Your task to perform on an android device: Open Chrome and go to the settings page Image 0: 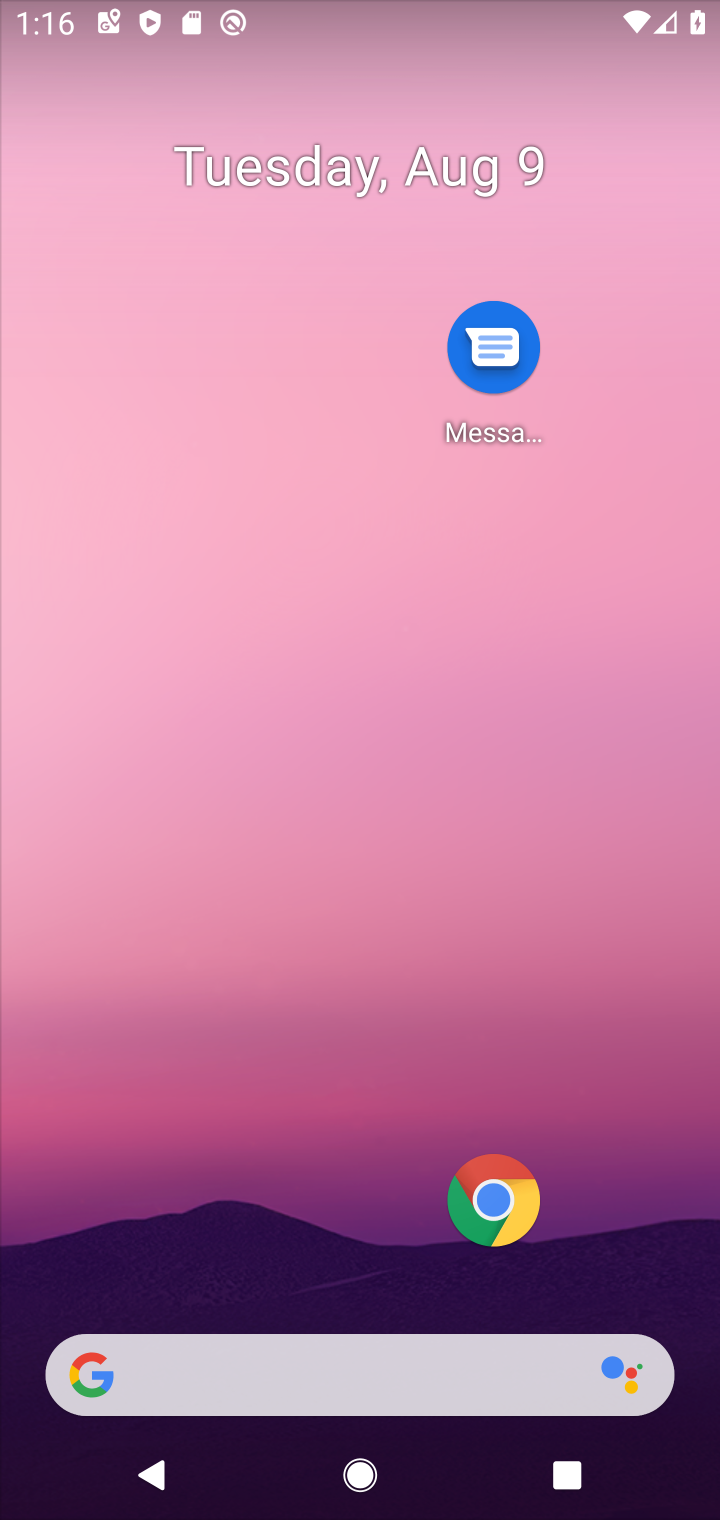
Step 0: click (485, 1207)
Your task to perform on an android device: Open Chrome and go to the settings page Image 1: 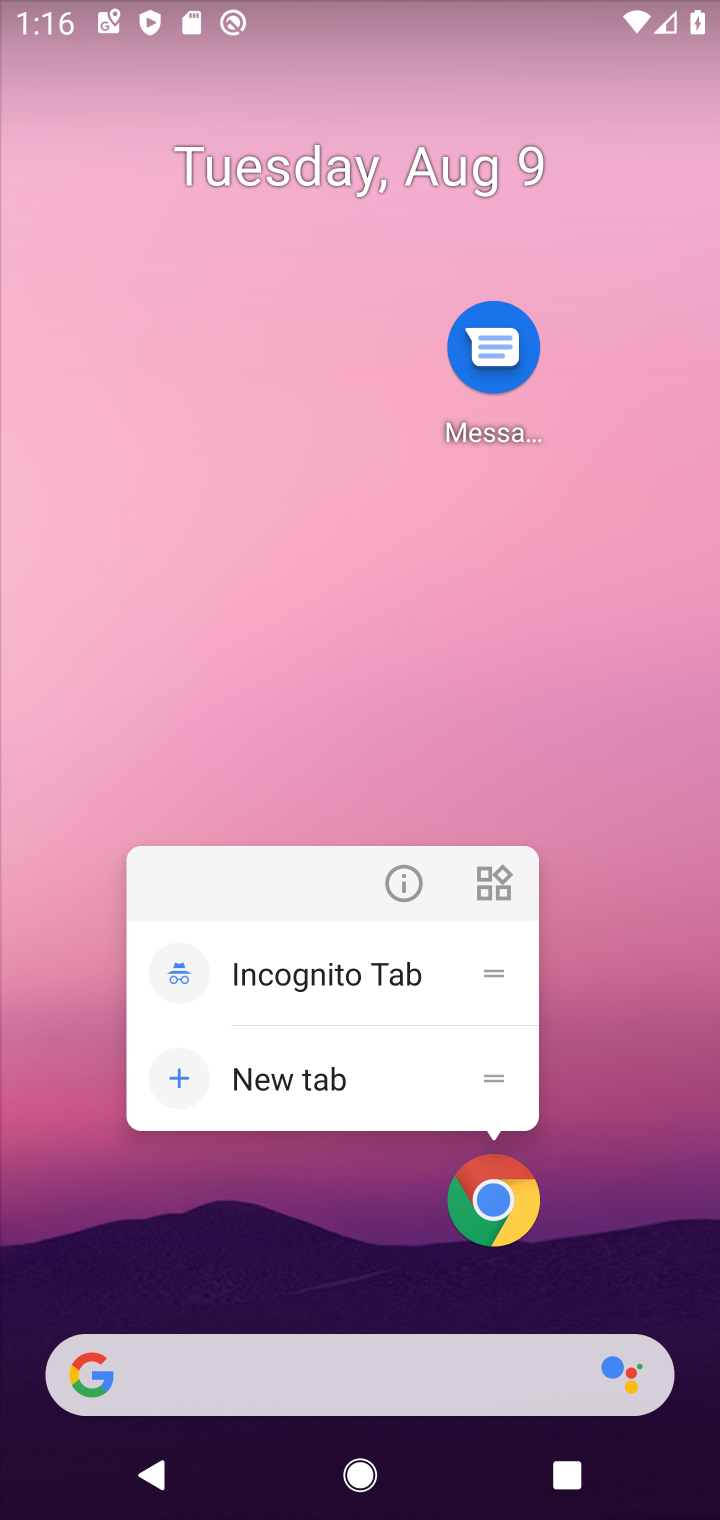
Step 1: click (495, 1200)
Your task to perform on an android device: Open Chrome and go to the settings page Image 2: 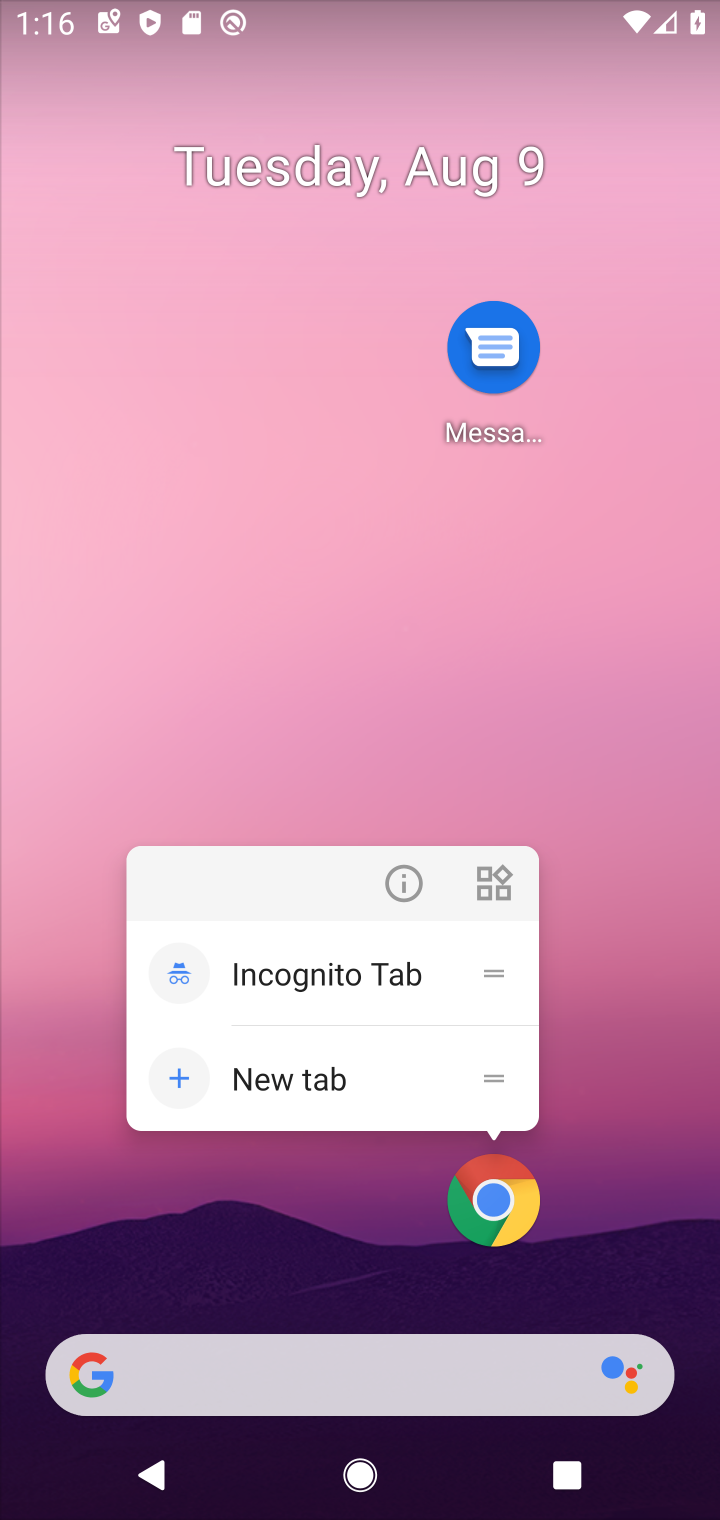
Step 2: click (501, 1186)
Your task to perform on an android device: Open Chrome and go to the settings page Image 3: 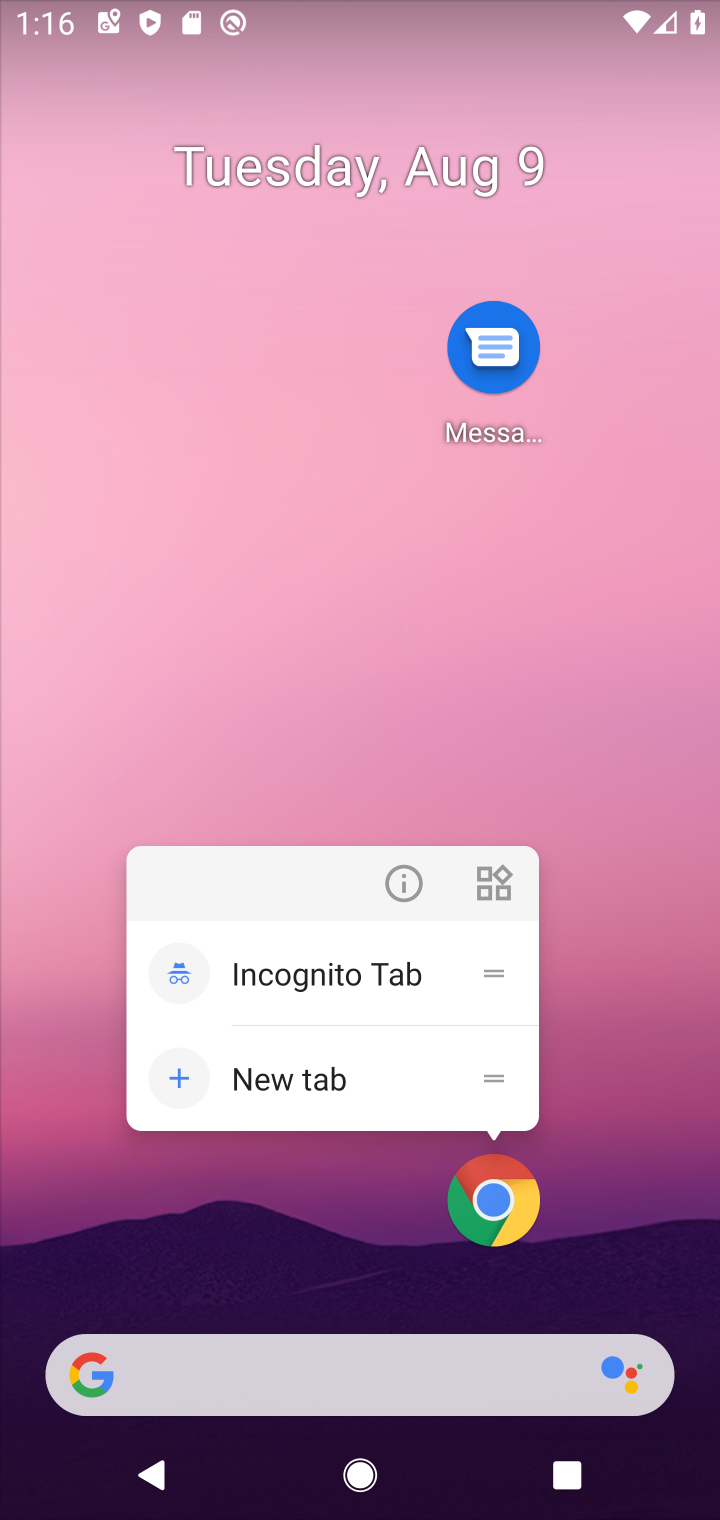
Step 3: click (511, 1218)
Your task to perform on an android device: Open Chrome and go to the settings page Image 4: 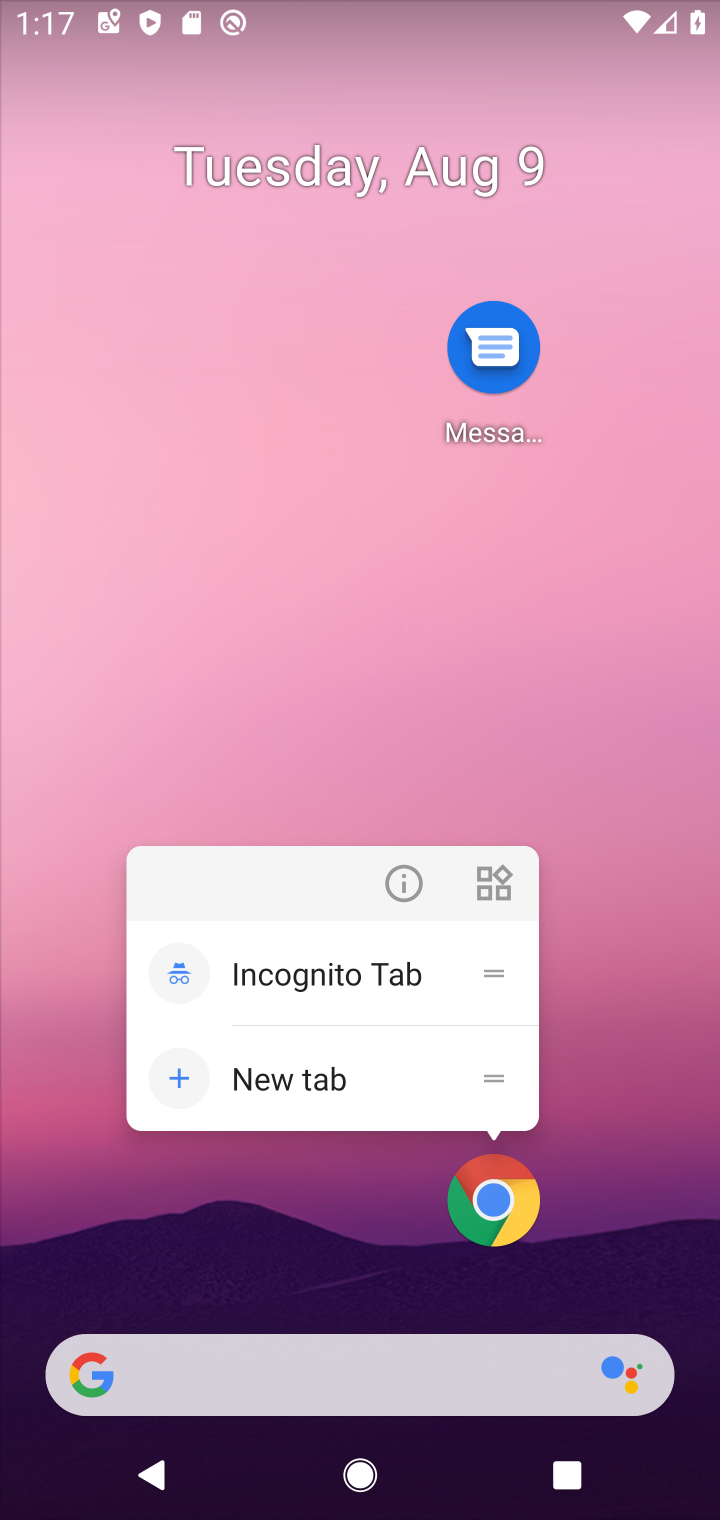
Step 4: click (506, 1205)
Your task to perform on an android device: Open Chrome and go to the settings page Image 5: 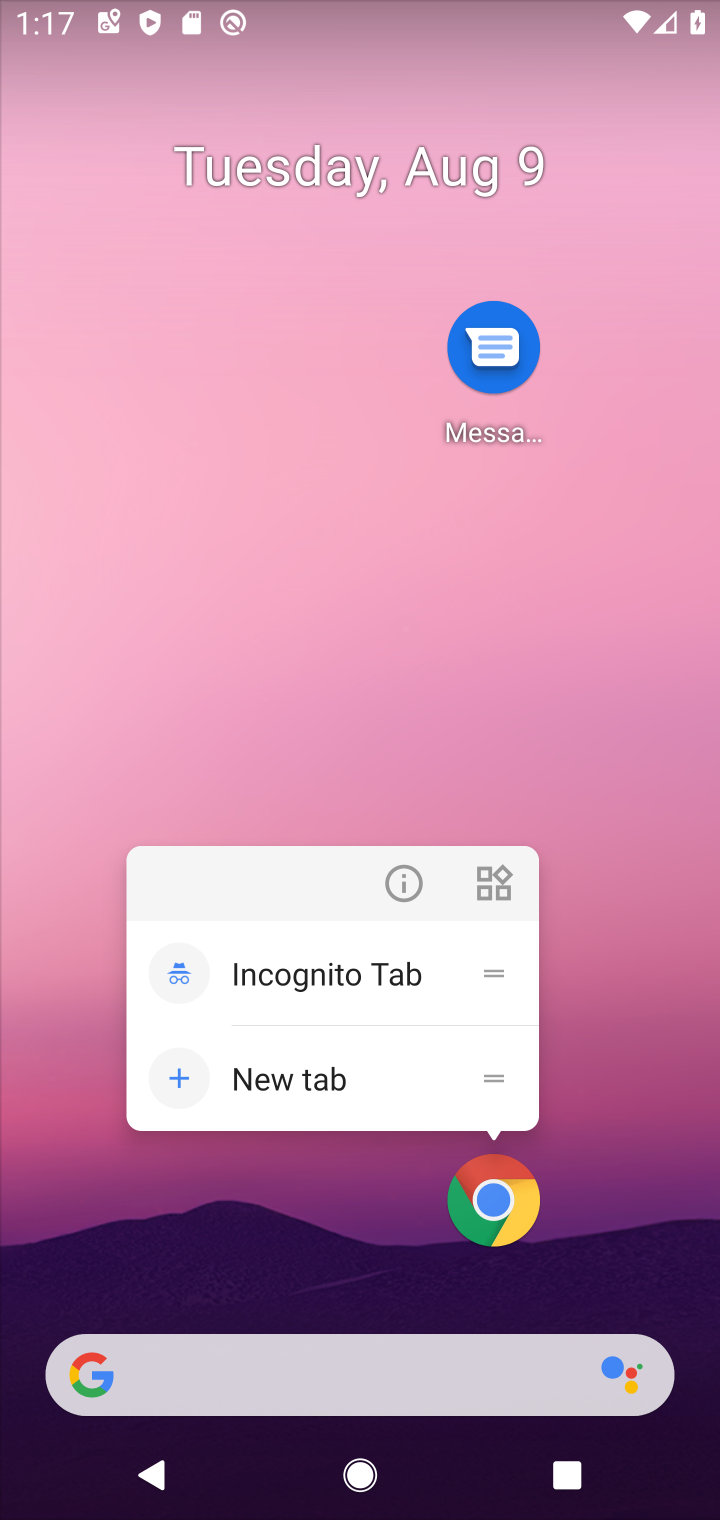
Step 5: click (489, 1201)
Your task to perform on an android device: Open Chrome and go to the settings page Image 6: 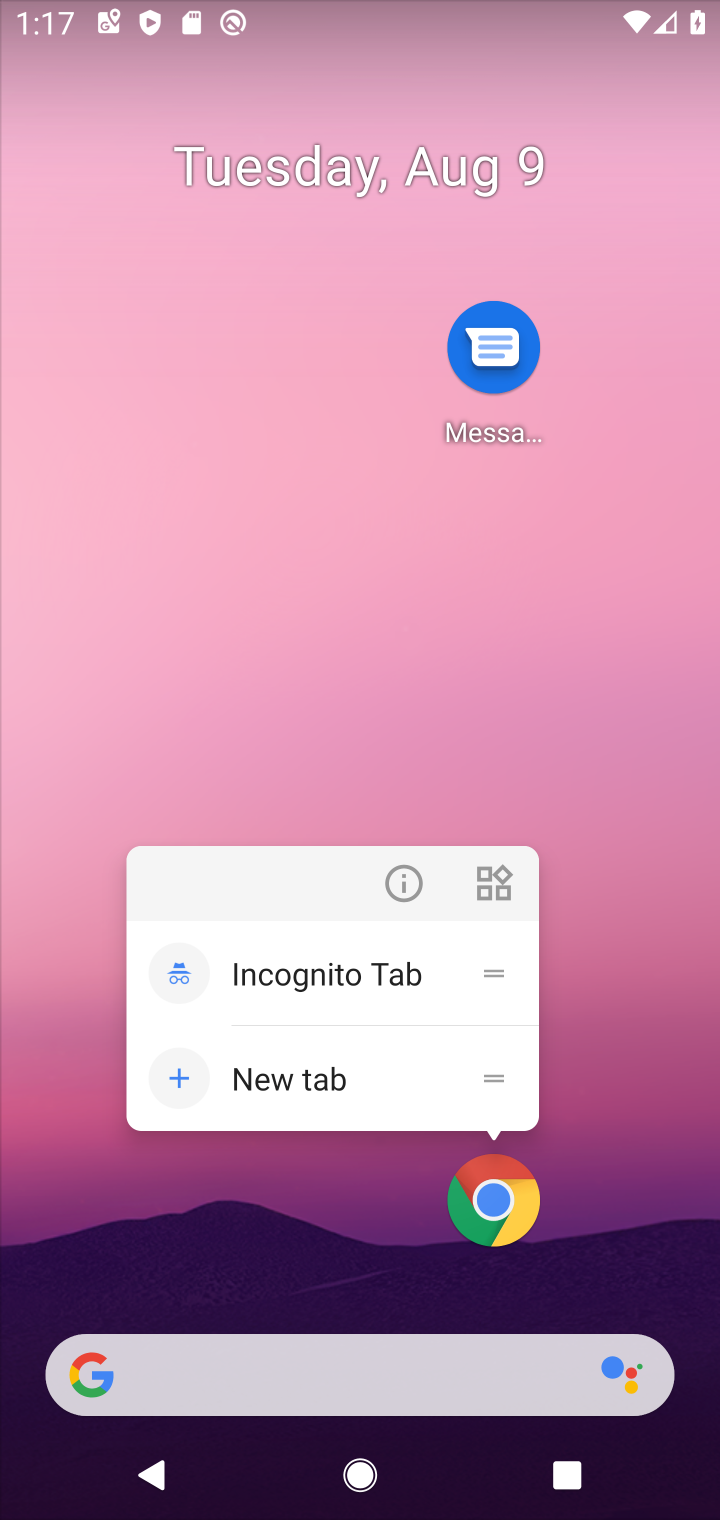
Step 6: click (497, 1201)
Your task to perform on an android device: Open Chrome and go to the settings page Image 7: 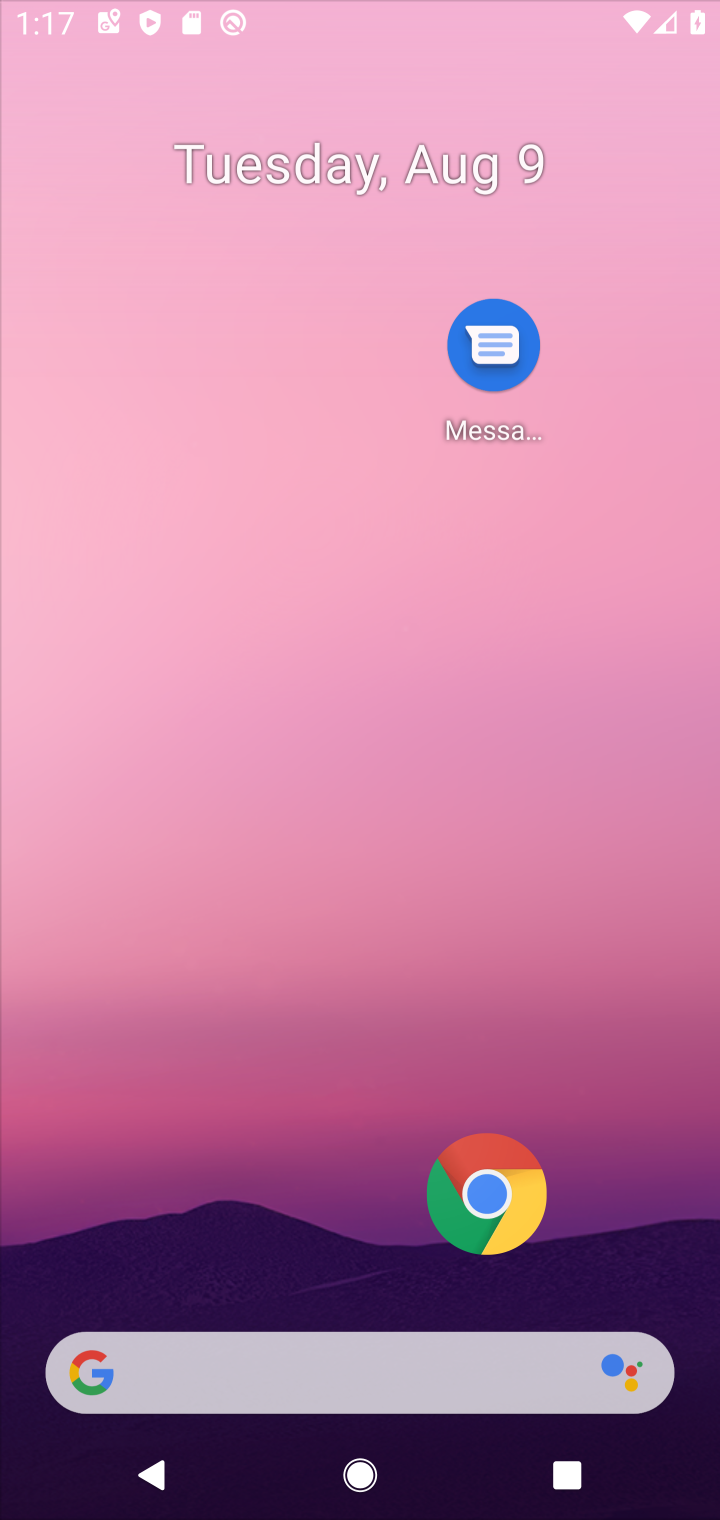
Step 7: click (500, 1201)
Your task to perform on an android device: Open Chrome and go to the settings page Image 8: 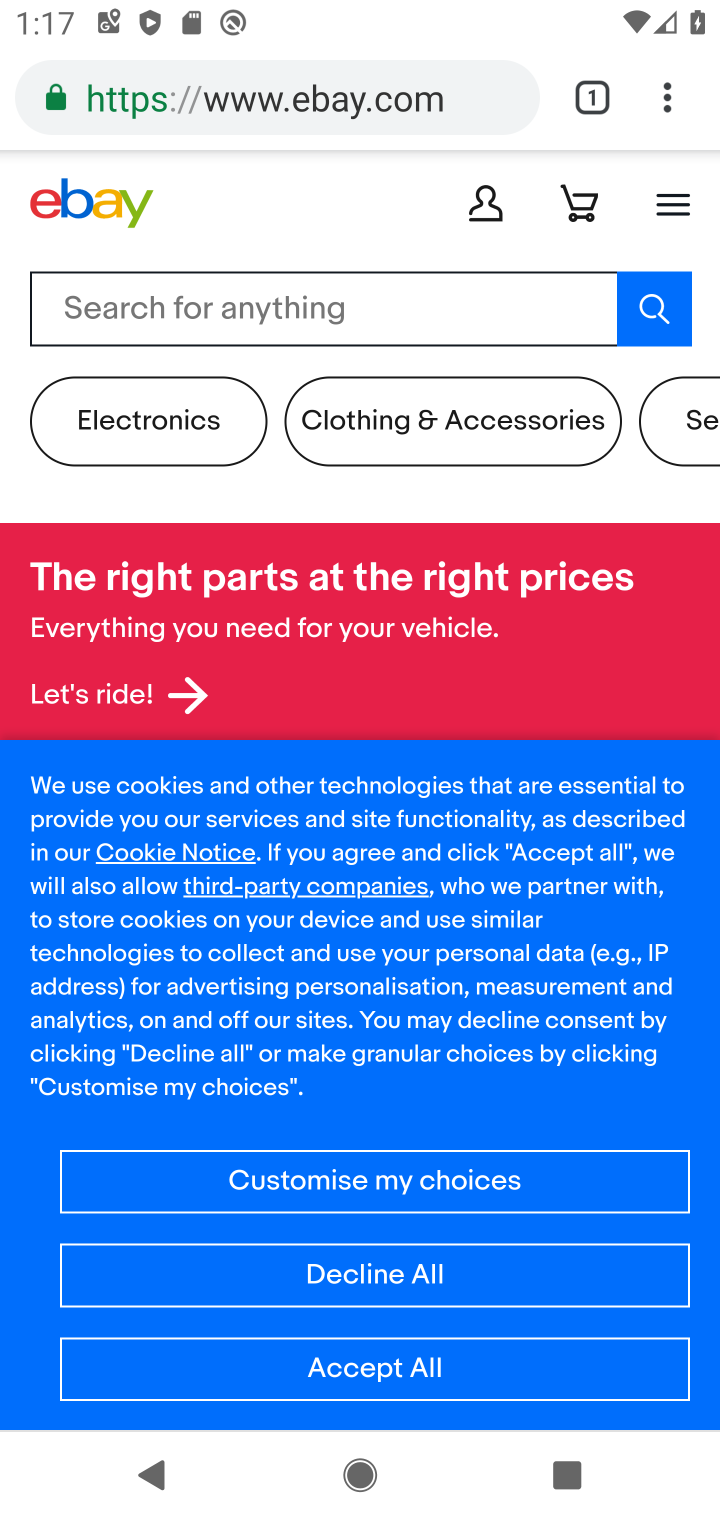
Step 8: task complete